Your task to perform on an android device: Open Google Chrome and open the bookmarks view Image 0: 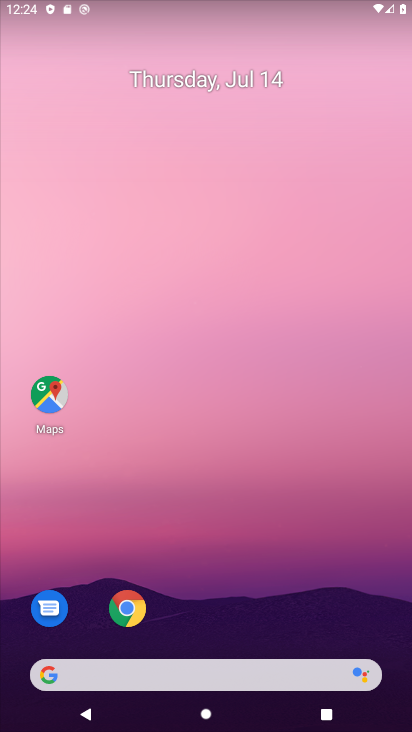
Step 0: click (120, 614)
Your task to perform on an android device: Open Google Chrome and open the bookmarks view Image 1: 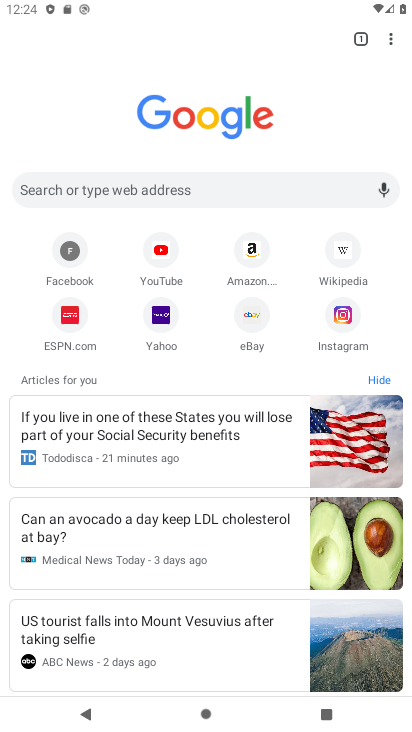
Step 1: task complete